Your task to perform on an android device: Show me productivity apps on the Play Store Image 0: 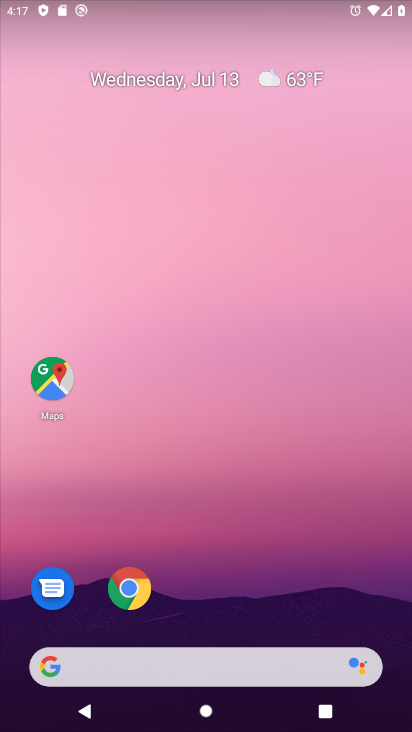
Step 0: drag from (182, 662) to (285, 132)
Your task to perform on an android device: Show me productivity apps on the Play Store Image 1: 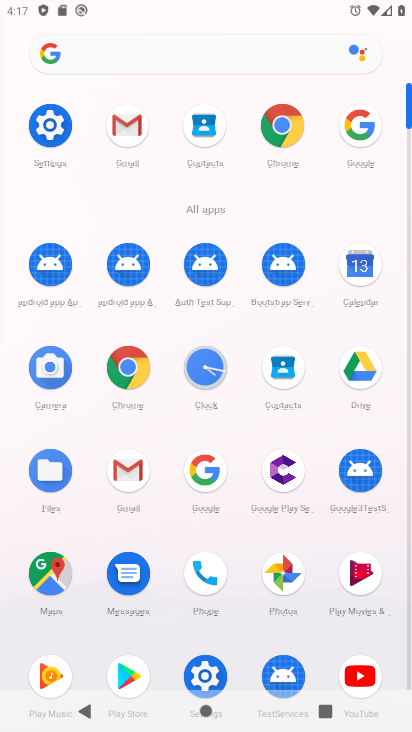
Step 1: click (130, 677)
Your task to perform on an android device: Show me productivity apps on the Play Store Image 2: 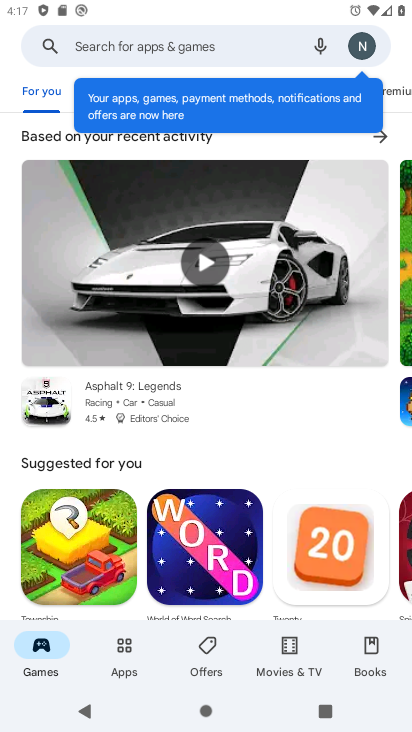
Step 2: click (124, 650)
Your task to perform on an android device: Show me productivity apps on the Play Store Image 3: 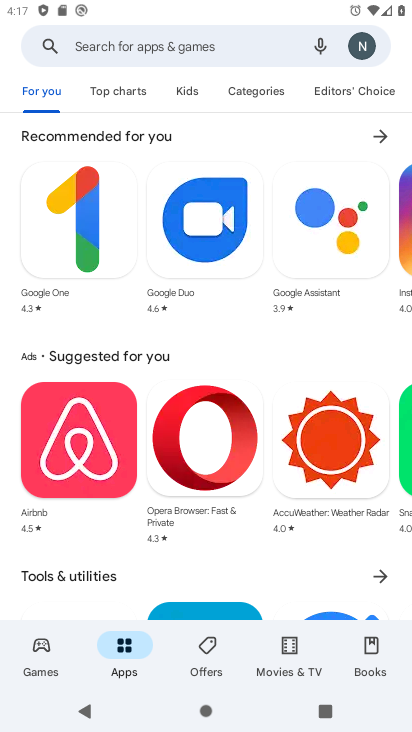
Step 3: click (264, 91)
Your task to perform on an android device: Show me productivity apps on the Play Store Image 4: 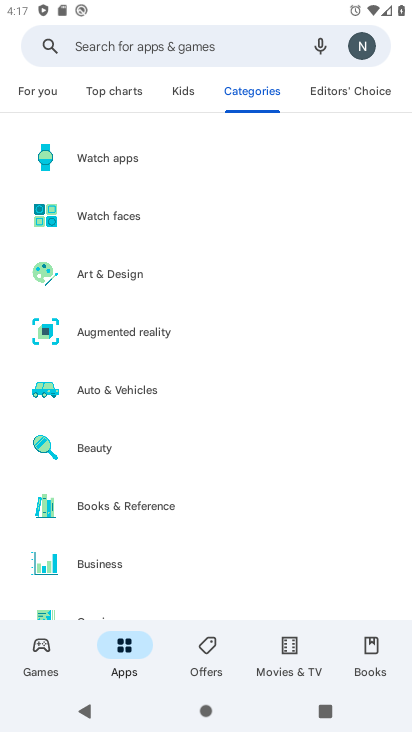
Step 4: drag from (134, 428) to (183, 339)
Your task to perform on an android device: Show me productivity apps on the Play Store Image 5: 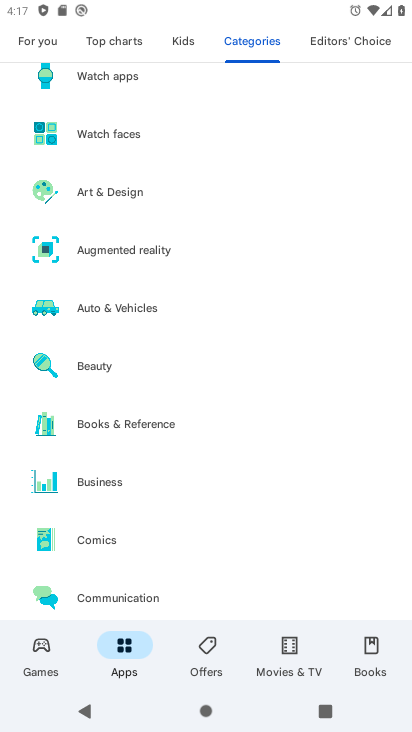
Step 5: drag from (111, 446) to (175, 345)
Your task to perform on an android device: Show me productivity apps on the Play Store Image 6: 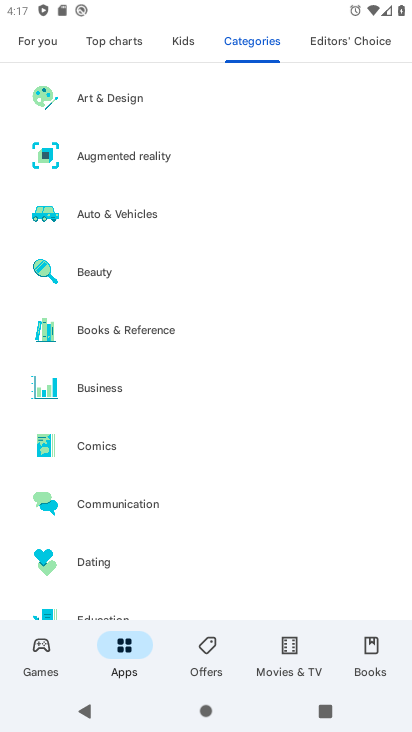
Step 6: drag from (100, 471) to (174, 368)
Your task to perform on an android device: Show me productivity apps on the Play Store Image 7: 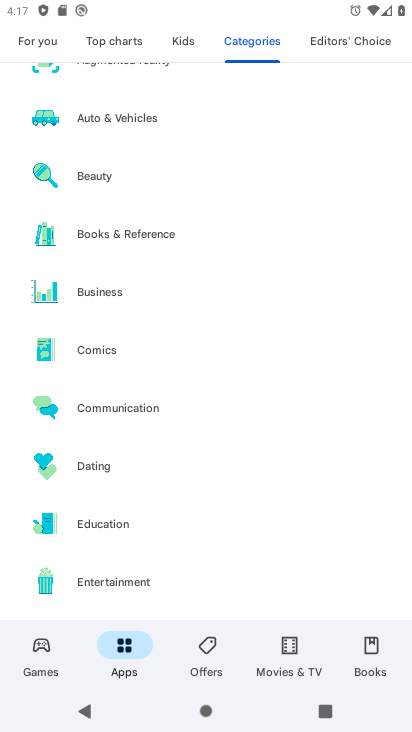
Step 7: drag from (104, 445) to (188, 330)
Your task to perform on an android device: Show me productivity apps on the Play Store Image 8: 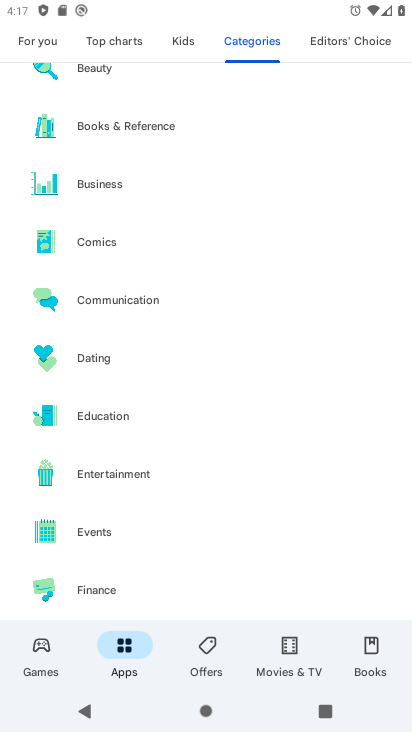
Step 8: drag from (102, 444) to (169, 347)
Your task to perform on an android device: Show me productivity apps on the Play Store Image 9: 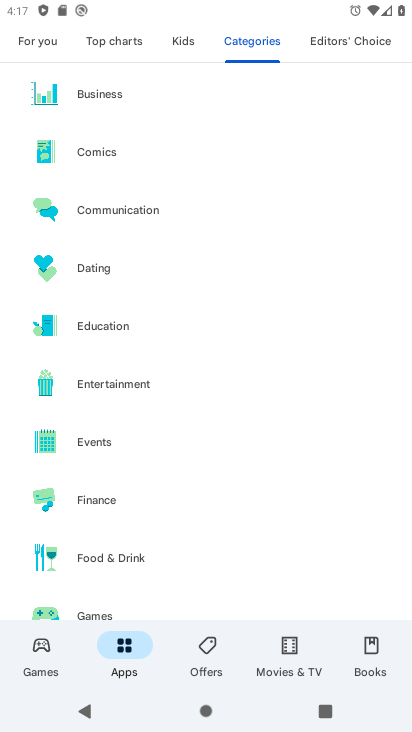
Step 9: drag from (87, 470) to (168, 363)
Your task to perform on an android device: Show me productivity apps on the Play Store Image 10: 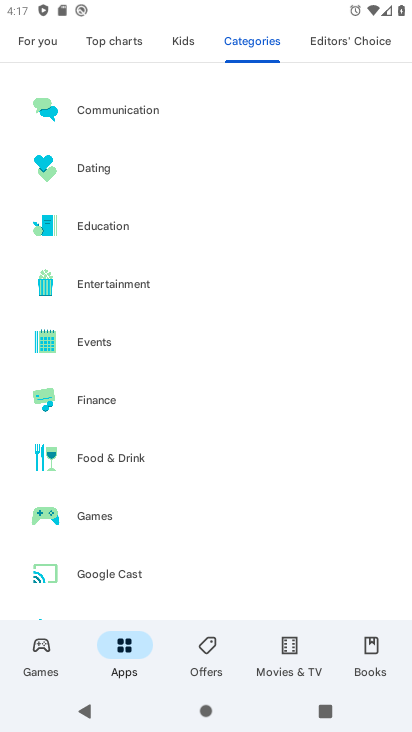
Step 10: drag from (97, 478) to (148, 393)
Your task to perform on an android device: Show me productivity apps on the Play Store Image 11: 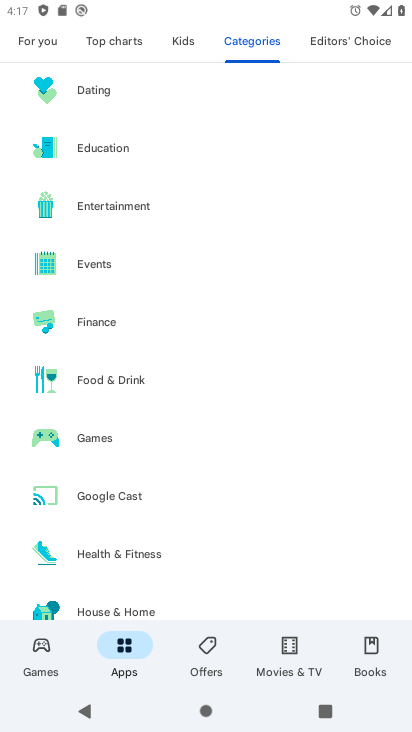
Step 11: drag from (100, 512) to (155, 410)
Your task to perform on an android device: Show me productivity apps on the Play Store Image 12: 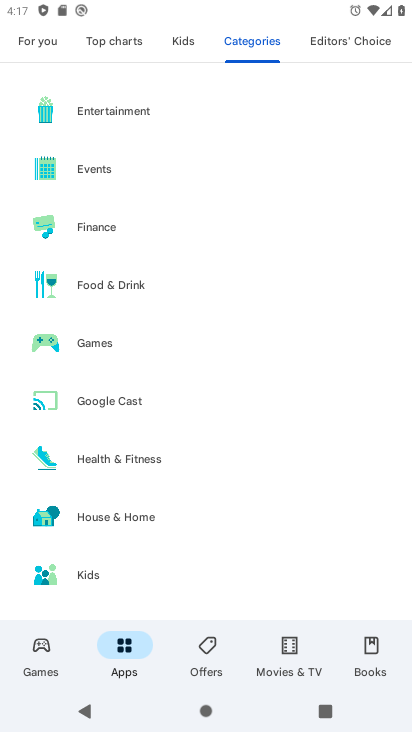
Step 12: drag from (109, 545) to (190, 435)
Your task to perform on an android device: Show me productivity apps on the Play Store Image 13: 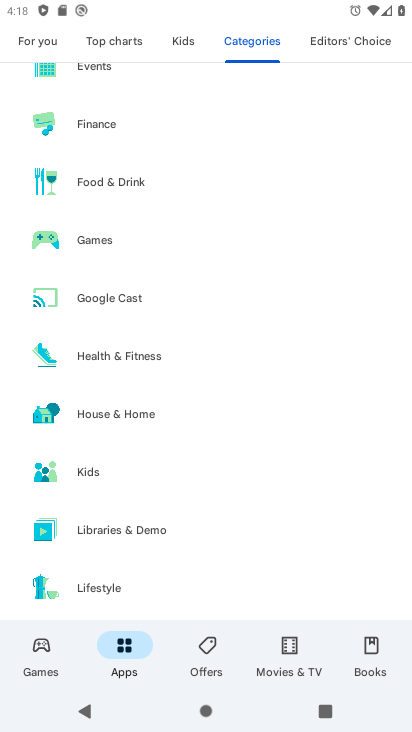
Step 13: drag from (111, 546) to (178, 437)
Your task to perform on an android device: Show me productivity apps on the Play Store Image 14: 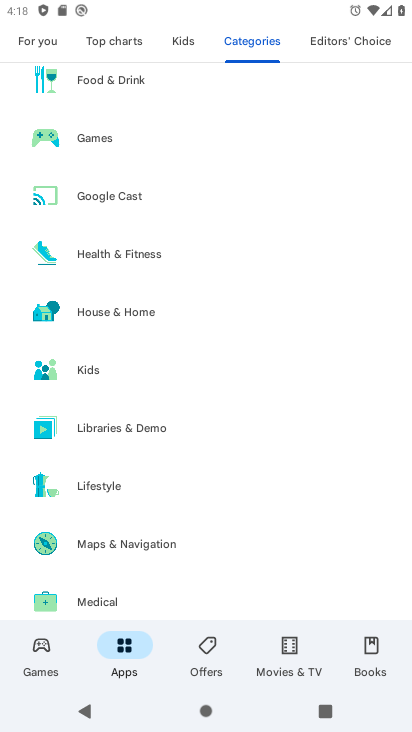
Step 14: drag from (115, 512) to (174, 427)
Your task to perform on an android device: Show me productivity apps on the Play Store Image 15: 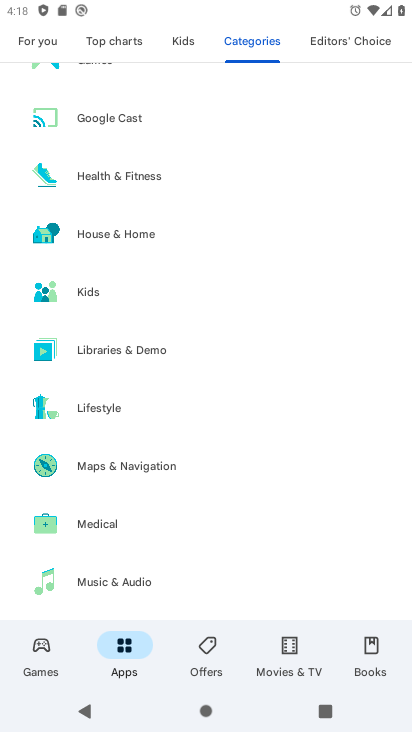
Step 15: drag from (112, 495) to (182, 408)
Your task to perform on an android device: Show me productivity apps on the Play Store Image 16: 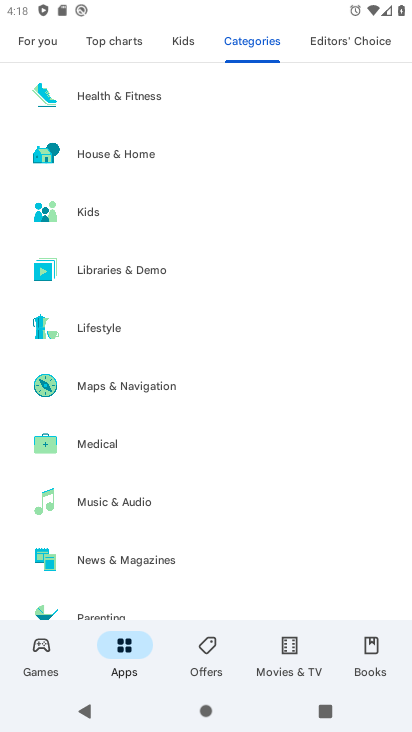
Step 16: drag from (88, 518) to (157, 434)
Your task to perform on an android device: Show me productivity apps on the Play Store Image 17: 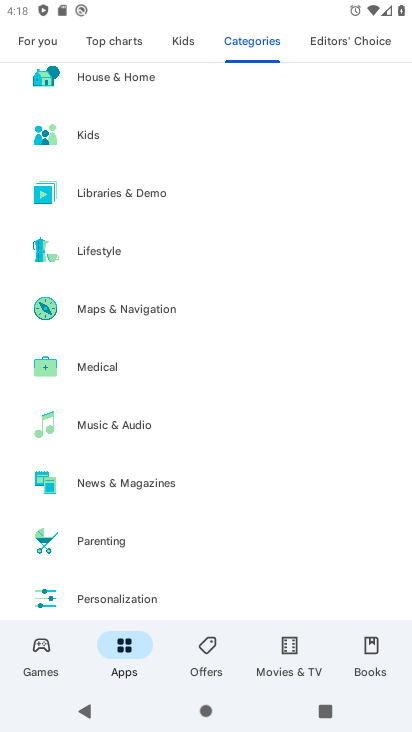
Step 17: drag from (96, 507) to (169, 411)
Your task to perform on an android device: Show me productivity apps on the Play Store Image 18: 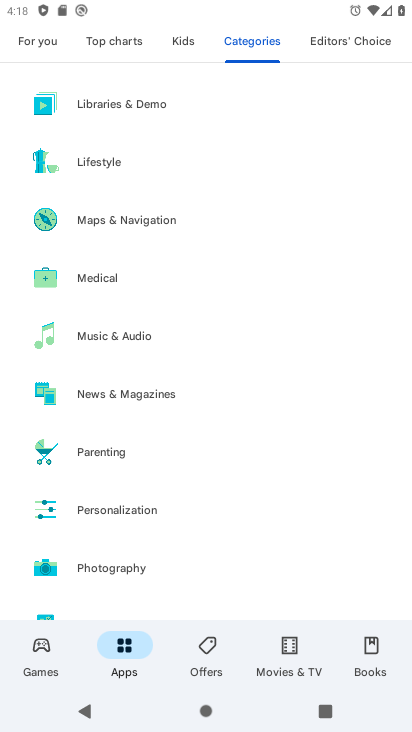
Step 18: drag from (99, 538) to (199, 414)
Your task to perform on an android device: Show me productivity apps on the Play Store Image 19: 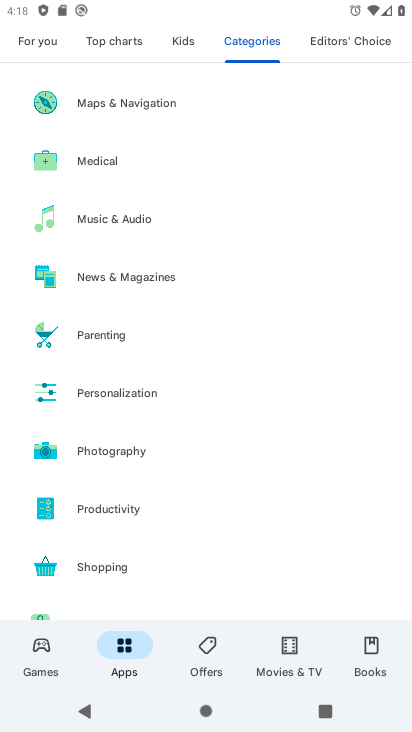
Step 19: click (124, 508)
Your task to perform on an android device: Show me productivity apps on the Play Store Image 20: 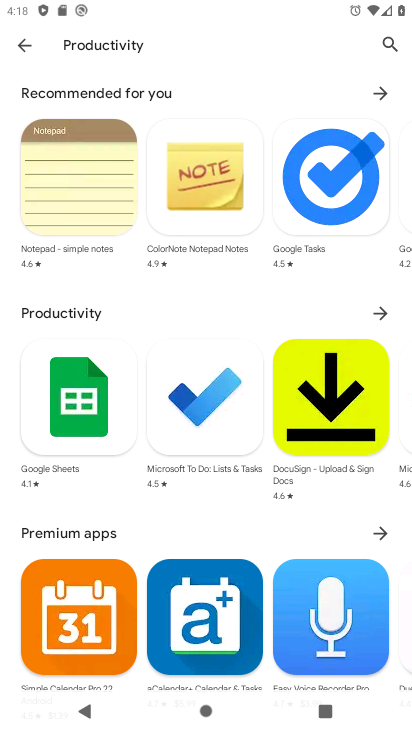
Step 20: task complete